Your task to perform on an android device: clear history in the chrome app Image 0: 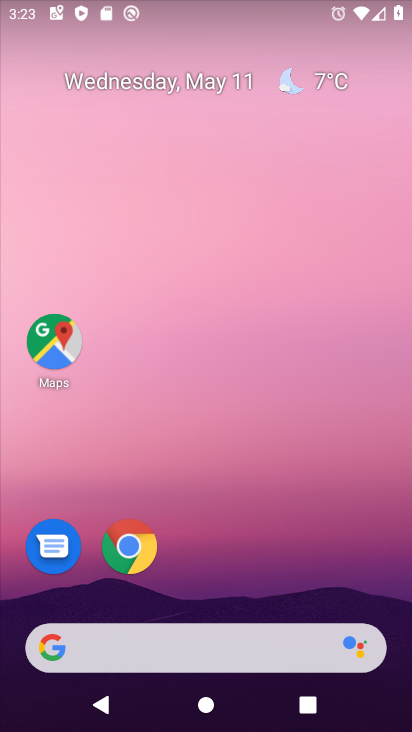
Step 0: drag from (287, 603) to (299, 14)
Your task to perform on an android device: clear history in the chrome app Image 1: 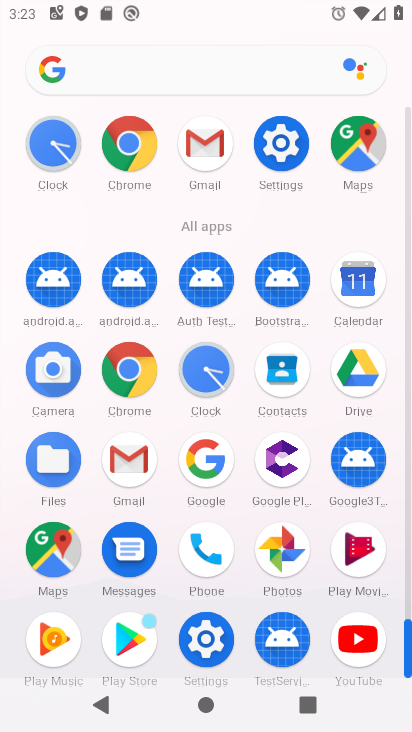
Step 1: click (146, 360)
Your task to perform on an android device: clear history in the chrome app Image 2: 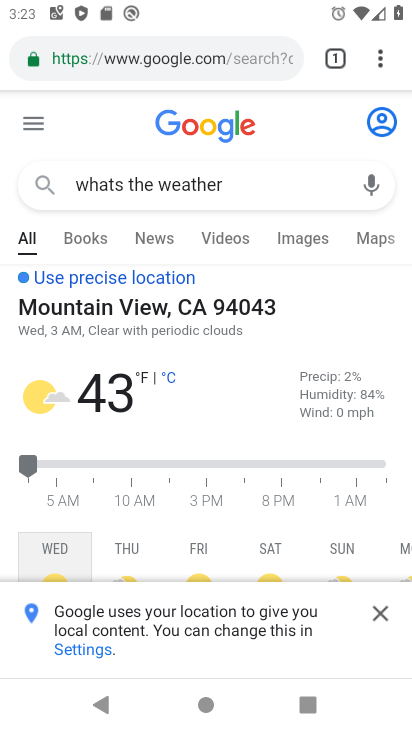
Step 2: drag from (370, 55) to (221, 320)
Your task to perform on an android device: clear history in the chrome app Image 3: 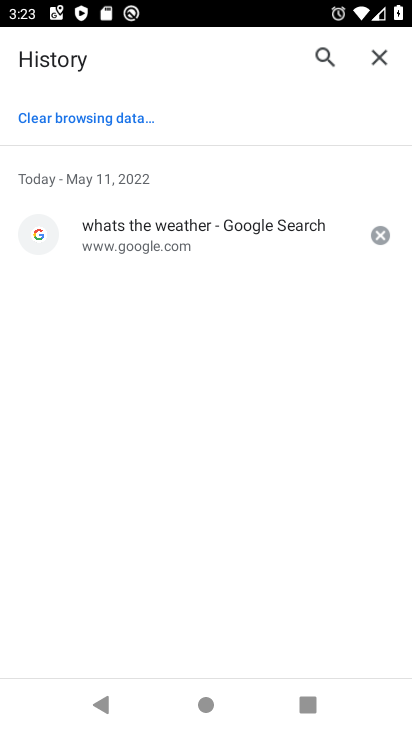
Step 3: click (128, 119)
Your task to perform on an android device: clear history in the chrome app Image 4: 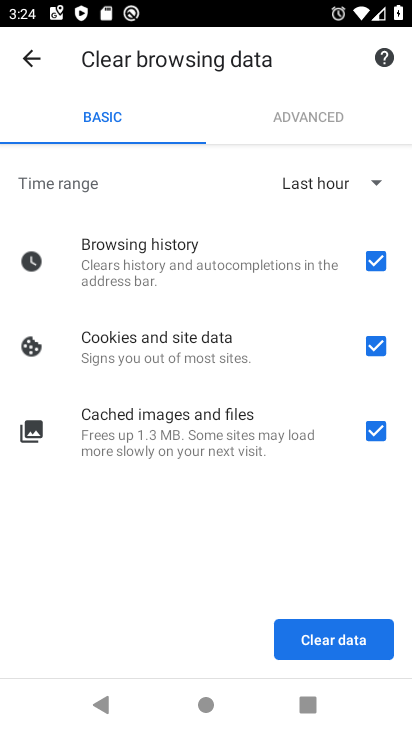
Step 4: click (330, 639)
Your task to perform on an android device: clear history in the chrome app Image 5: 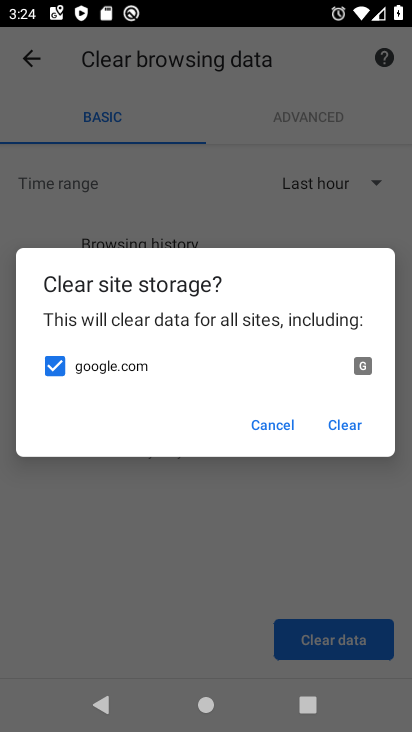
Step 5: click (357, 422)
Your task to perform on an android device: clear history in the chrome app Image 6: 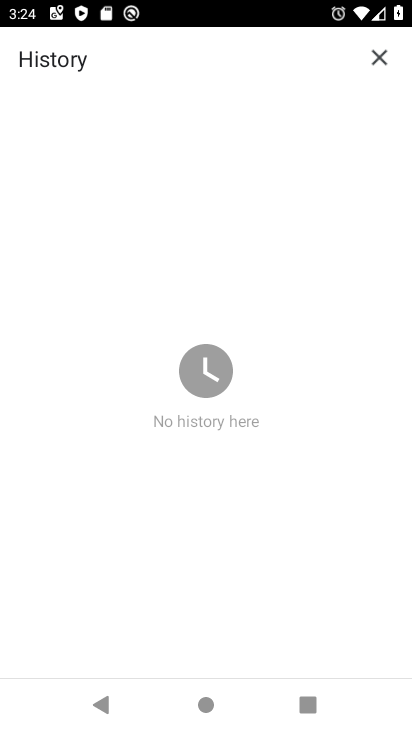
Step 6: task complete